Your task to perform on an android device: set the stopwatch Image 0: 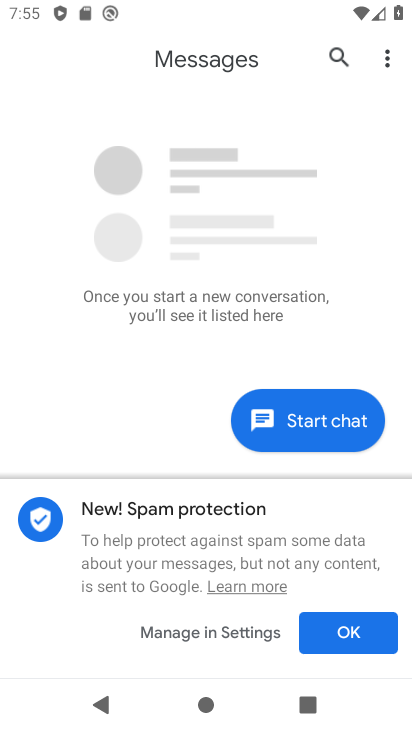
Step 0: press back button
Your task to perform on an android device: set the stopwatch Image 1: 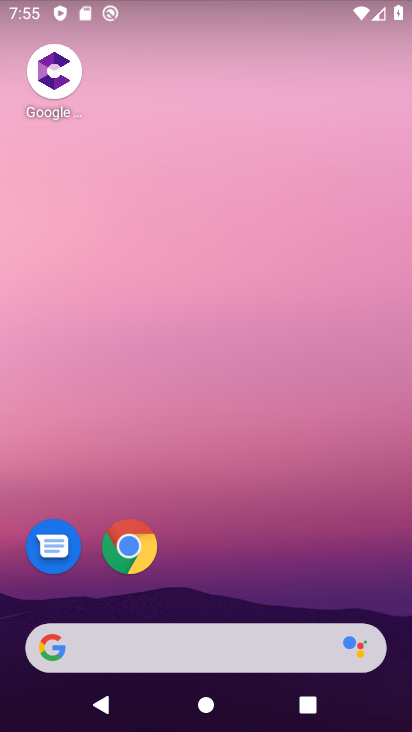
Step 1: drag from (242, 561) to (219, 80)
Your task to perform on an android device: set the stopwatch Image 2: 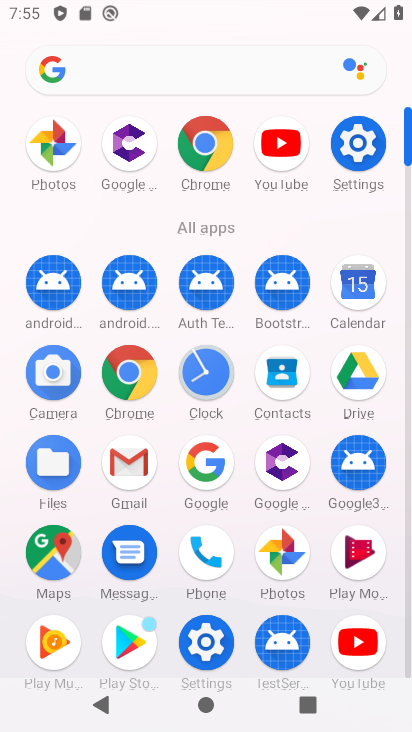
Step 2: click (209, 372)
Your task to perform on an android device: set the stopwatch Image 3: 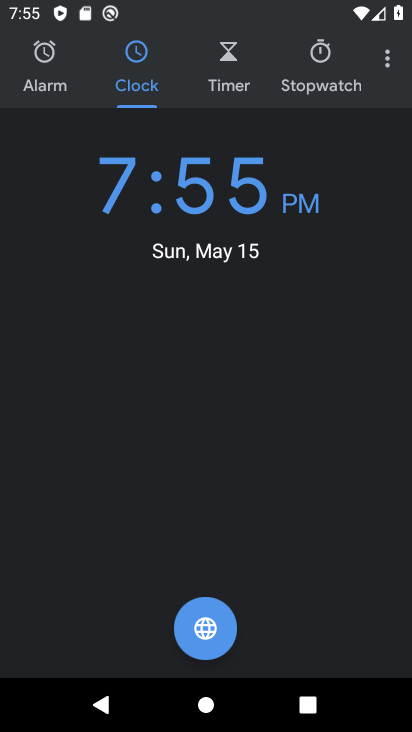
Step 3: click (319, 54)
Your task to perform on an android device: set the stopwatch Image 4: 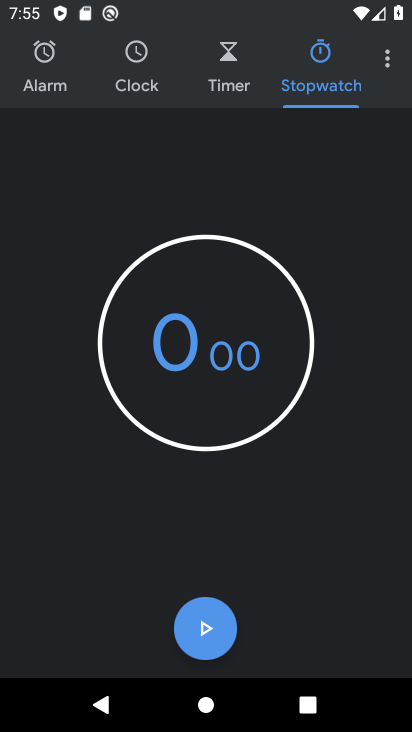
Step 4: click (201, 629)
Your task to perform on an android device: set the stopwatch Image 5: 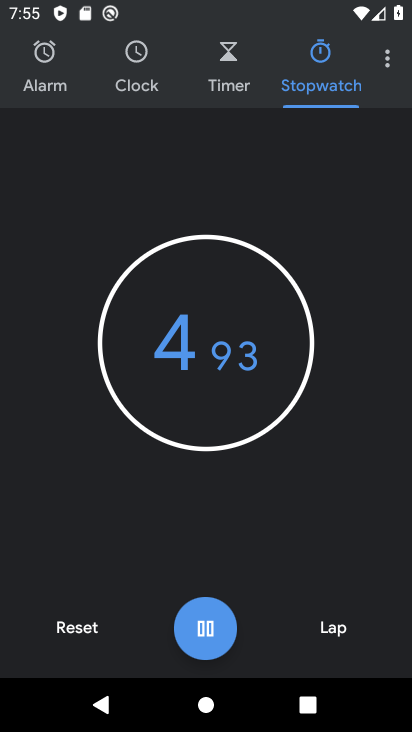
Step 5: click (201, 629)
Your task to perform on an android device: set the stopwatch Image 6: 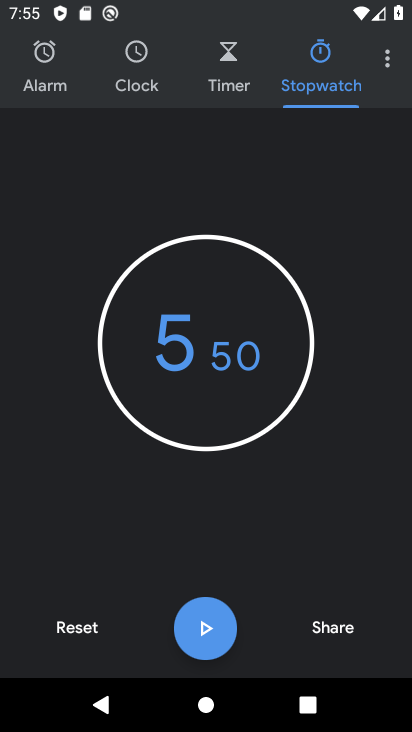
Step 6: task complete